Your task to perform on an android device: Search for the best rated 3d printer on Amazon. Image 0: 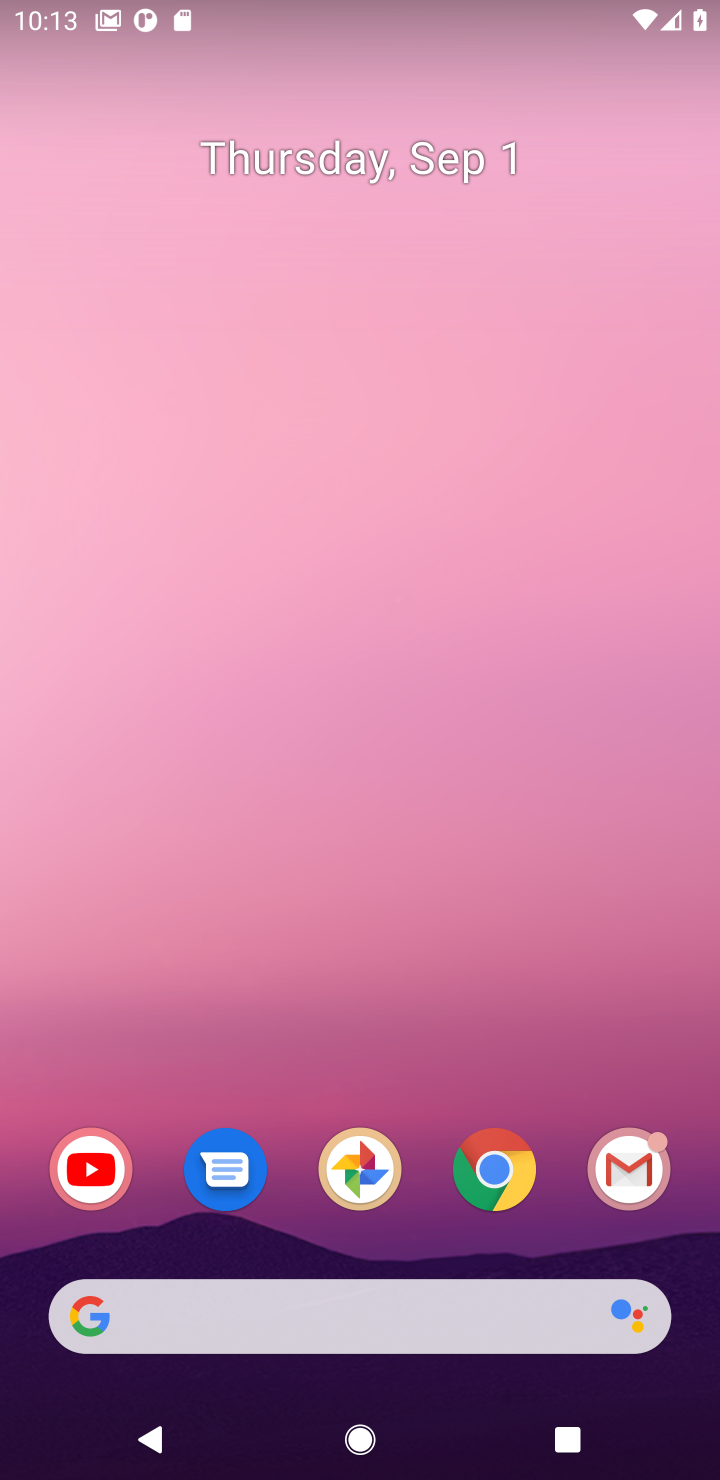
Step 0: drag from (377, 3) to (287, 149)
Your task to perform on an android device: Search for the best rated 3d printer on Amazon. Image 1: 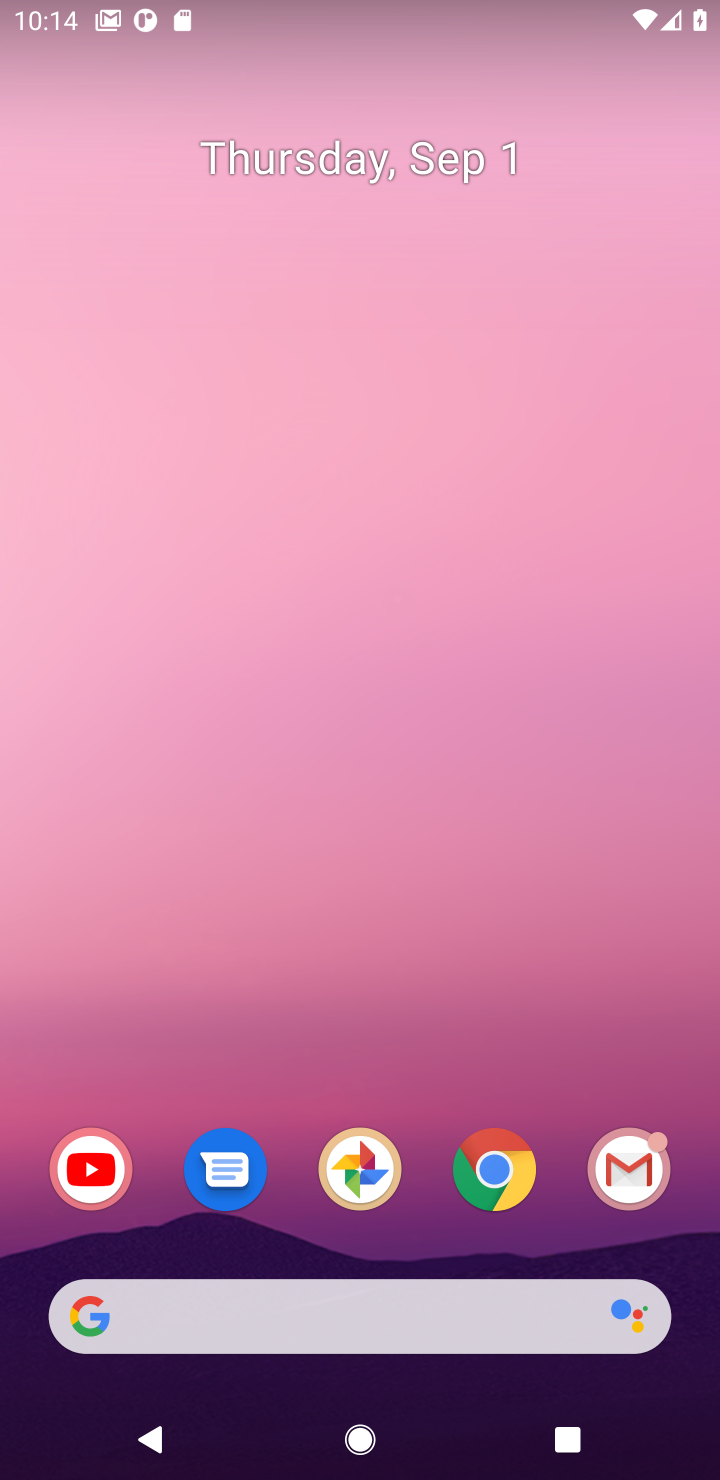
Step 1: drag from (410, 1081) to (498, 0)
Your task to perform on an android device: Search for the best rated 3d printer on Amazon. Image 2: 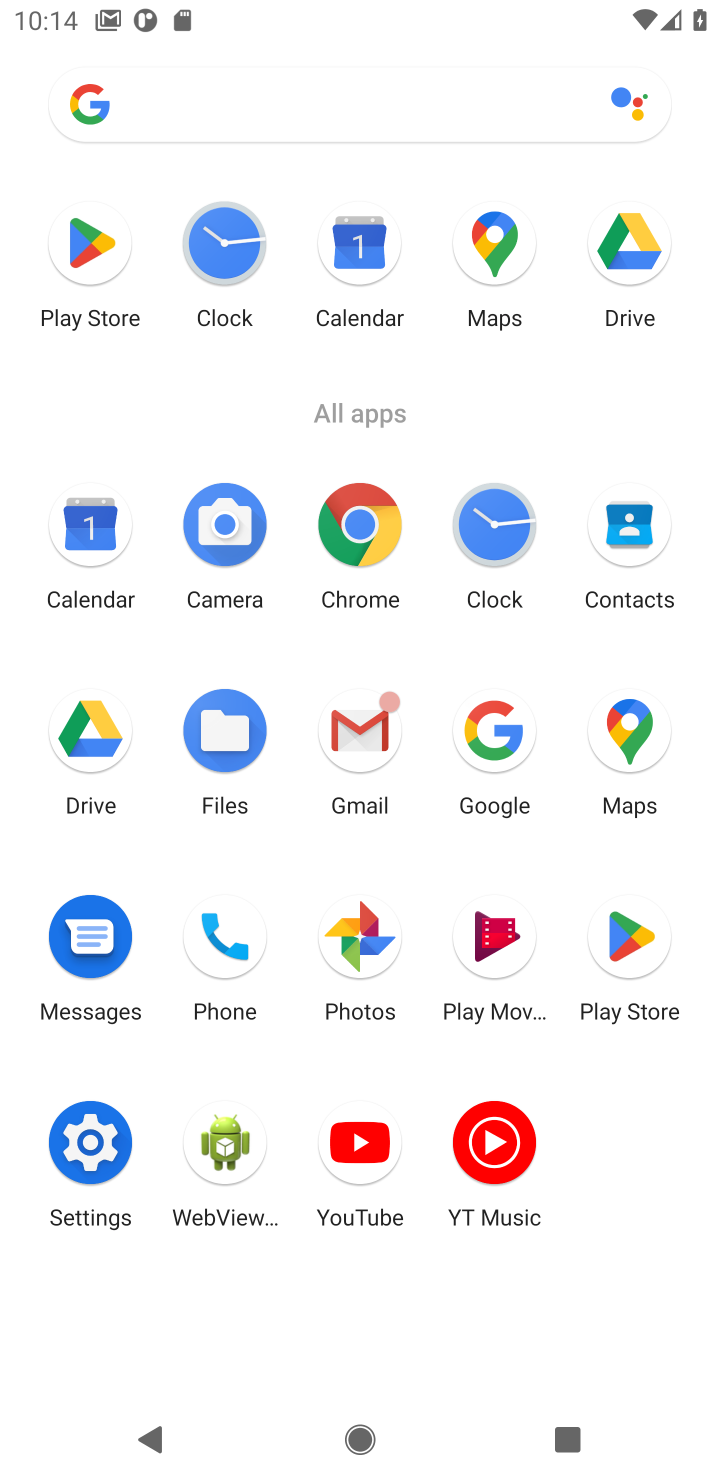
Step 2: click (355, 515)
Your task to perform on an android device: Search for the best rated 3d printer on Amazon. Image 3: 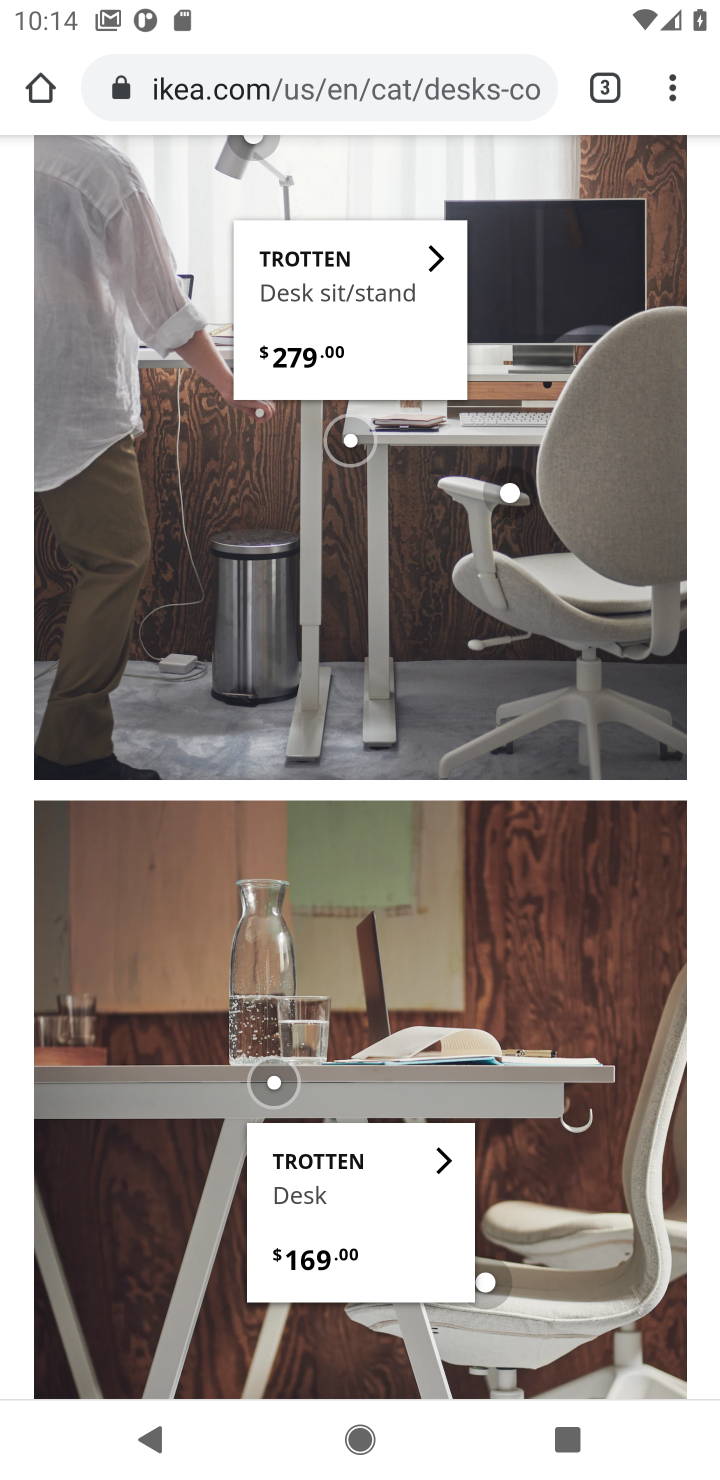
Step 3: click (390, 90)
Your task to perform on an android device: Search for the best rated 3d printer on Amazon. Image 4: 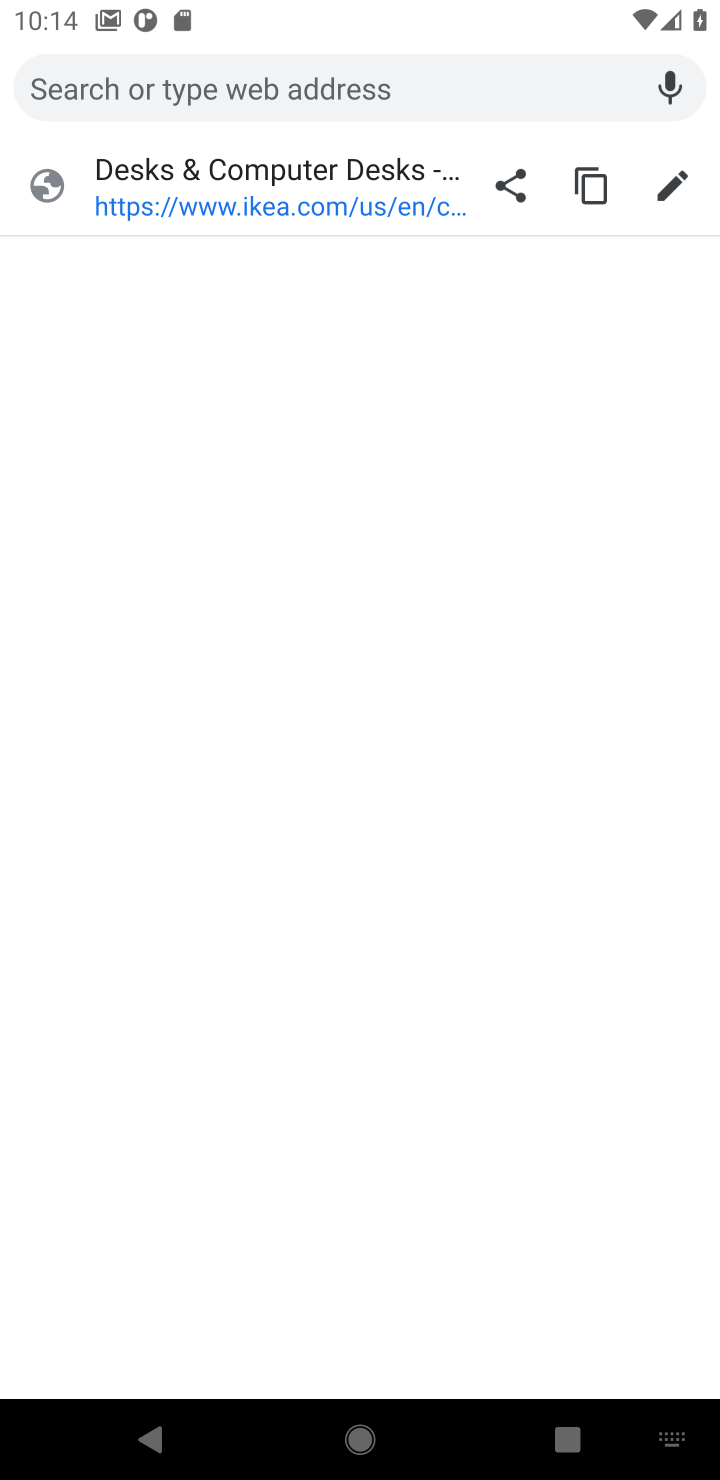
Step 4: type "3d printer on Amazon"
Your task to perform on an android device: Search for the best rated 3d printer on Amazon. Image 5: 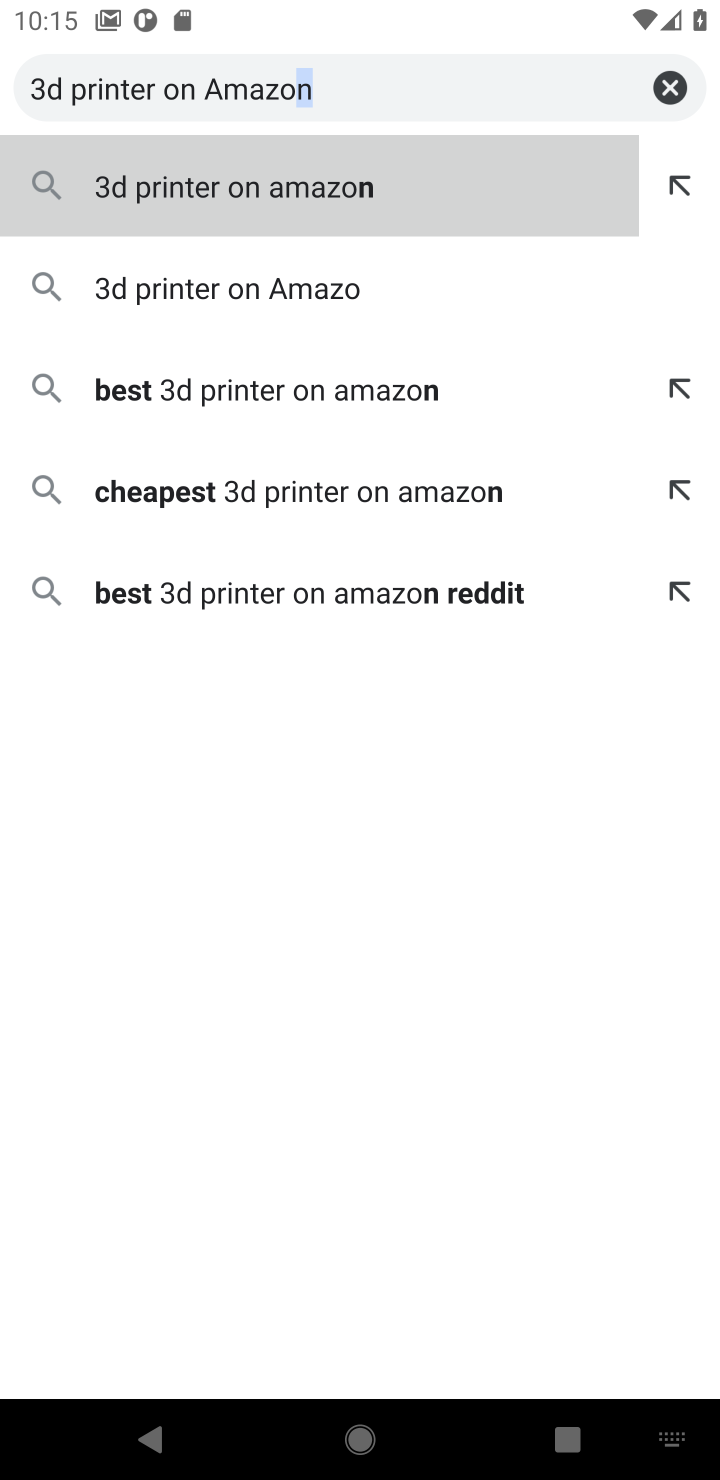
Step 5: click (234, 199)
Your task to perform on an android device: Search for the best rated 3d printer on Amazon. Image 6: 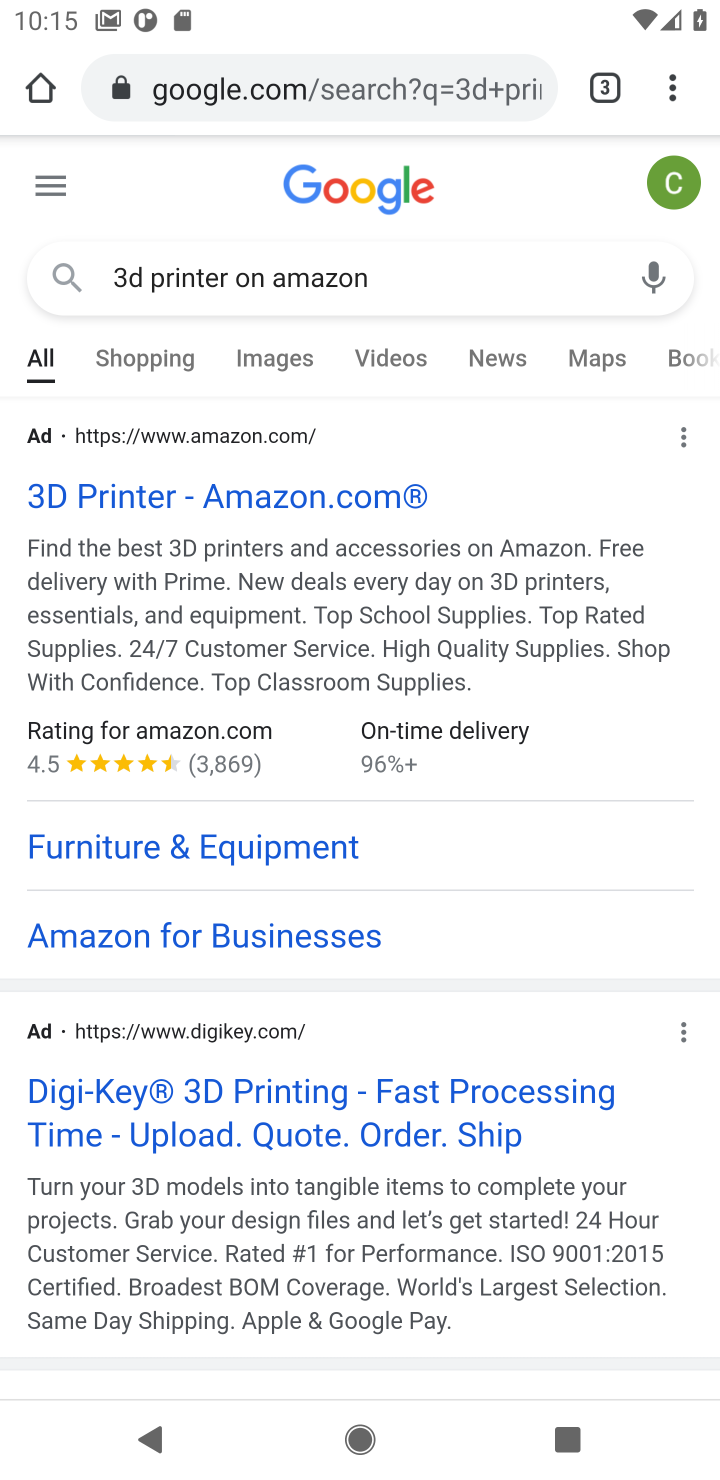
Step 6: click (137, 495)
Your task to perform on an android device: Search for the best rated 3d printer on Amazon. Image 7: 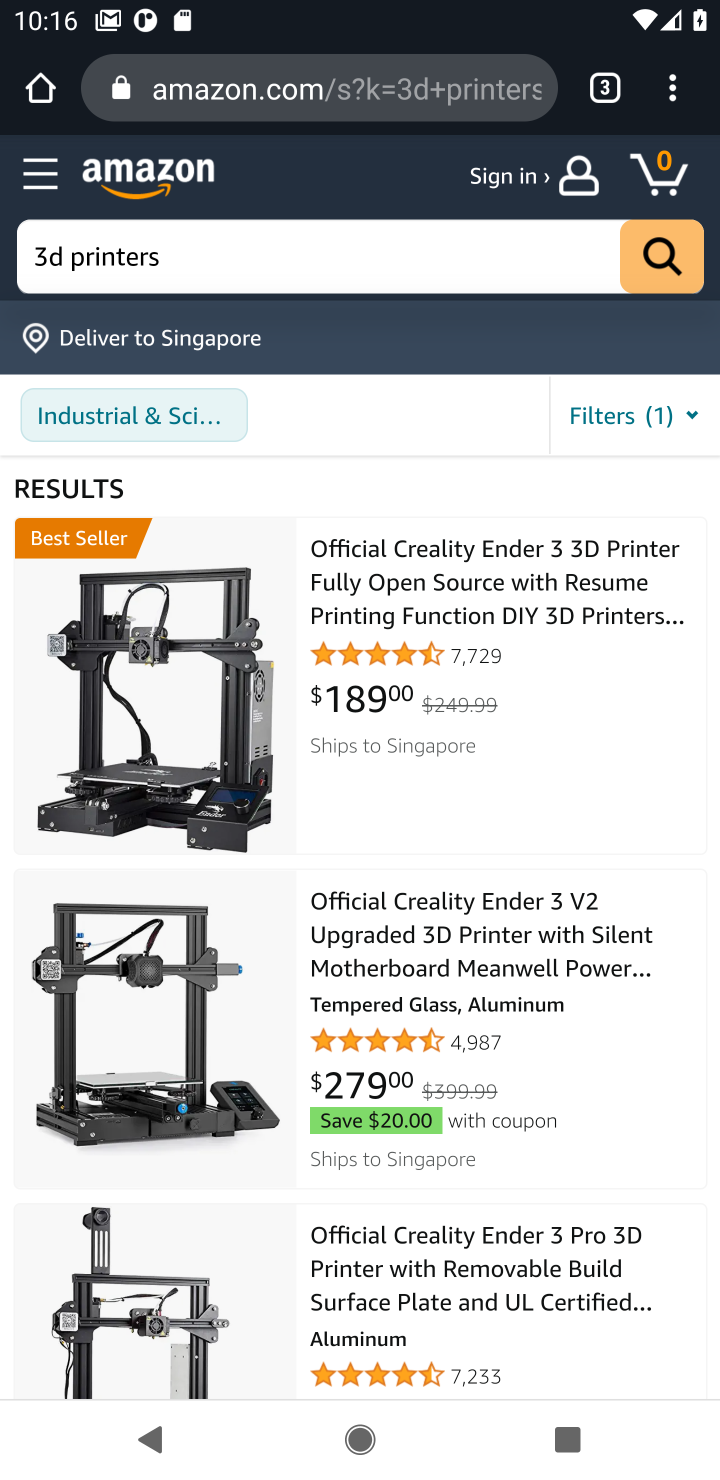
Step 7: task complete